Your task to perform on an android device: Go to Maps Image 0: 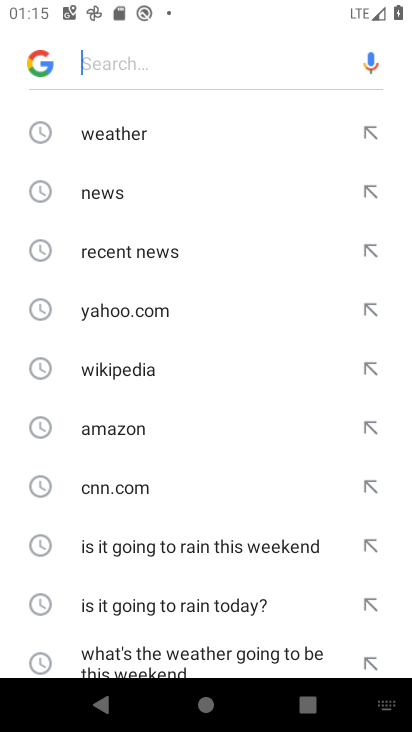
Step 0: press home button
Your task to perform on an android device: Go to Maps Image 1: 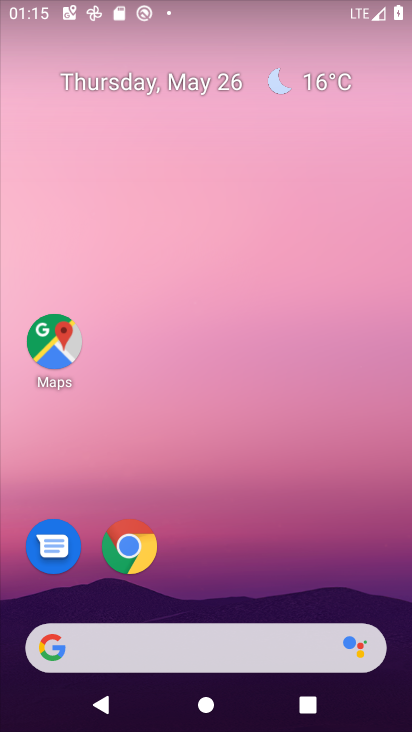
Step 1: click (61, 348)
Your task to perform on an android device: Go to Maps Image 2: 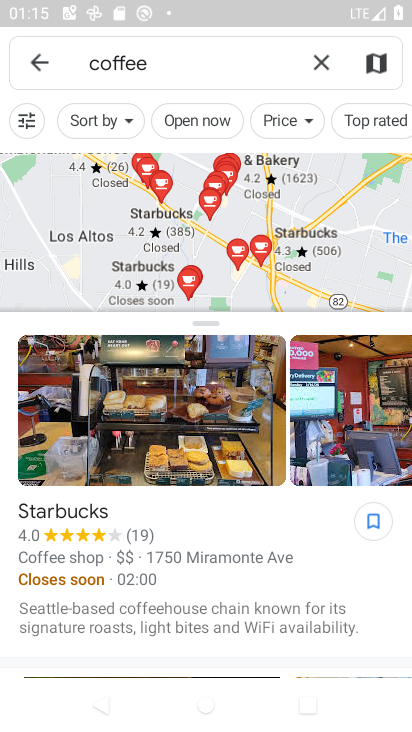
Step 2: task complete